Your task to perform on an android device: toggle data saver in the chrome app Image 0: 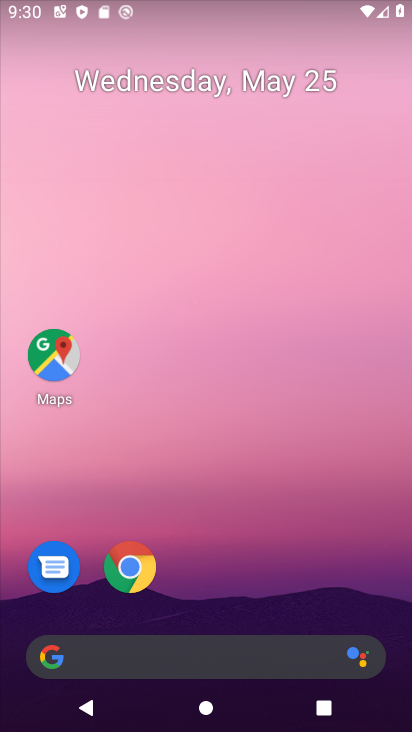
Step 0: click (138, 557)
Your task to perform on an android device: toggle data saver in the chrome app Image 1: 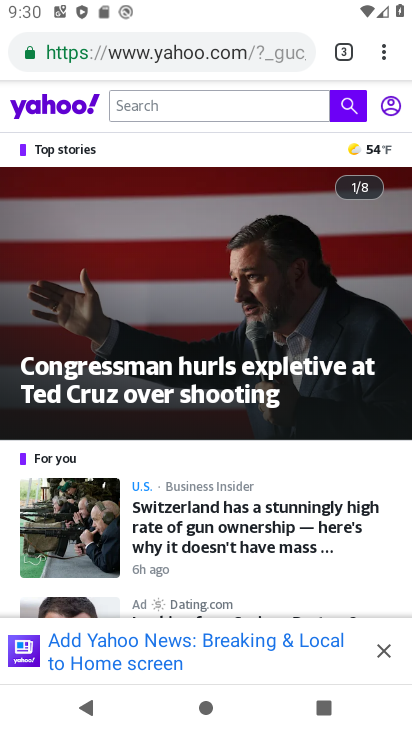
Step 1: click (388, 63)
Your task to perform on an android device: toggle data saver in the chrome app Image 2: 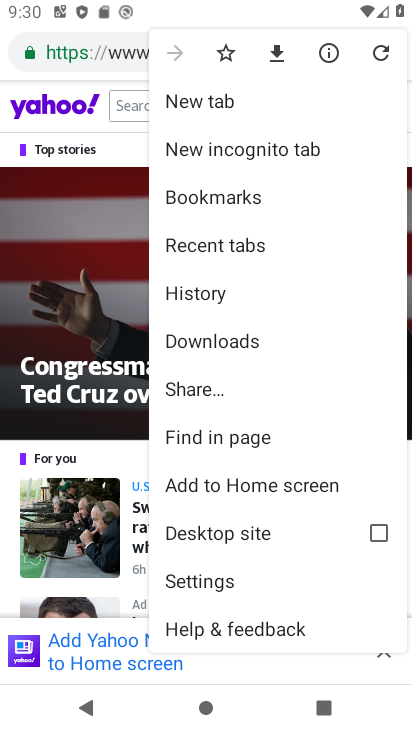
Step 2: click (225, 570)
Your task to perform on an android device: toggle data saver in the chrome app Image 3: 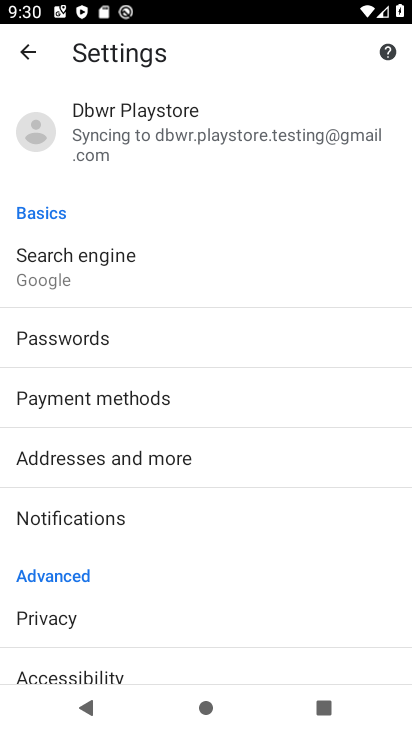
Step 3: drag from (203, 604) to (248, 213)
Your task to perform on an android device: toggle data saver in the chrome app Image 4: 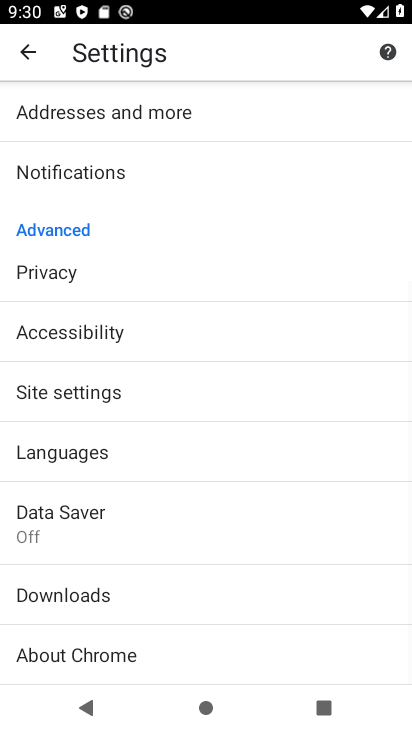
Step 4: click (121, 488)
Your task to perform on an android device: toggle data saver in the chrome app Image 5: 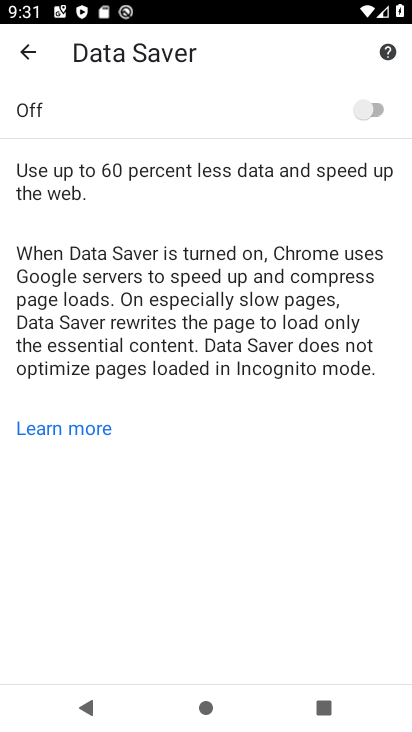
Step 5: click (363, 111)
Your task to perform on an android device: toggle data saver in the chrome app Image 6: 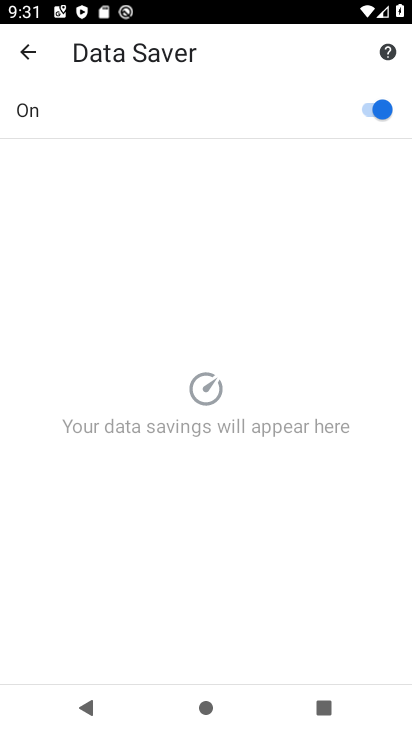
Step 6: task complete